Your task to perform on an android device: turn pop-ups on in chrome Image 0: 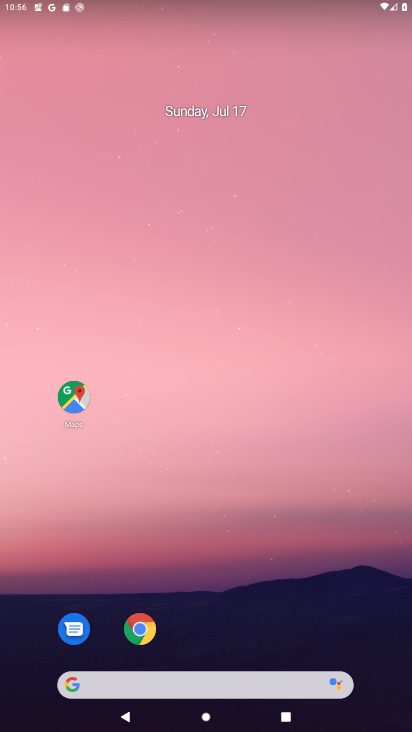
Step 0: click (141, 628)
Your task to perform on an android device: turn pop-ups on in chrome Image 1: 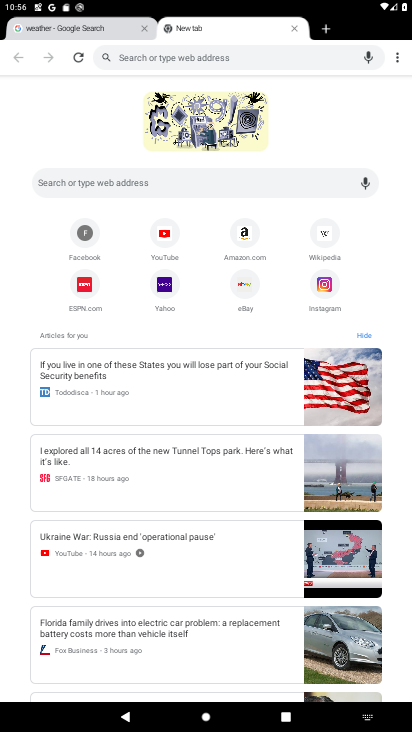
Step 1: click (396, 58)
Your task to perform on an android device: turn pop-ups on in chrome Image 2: 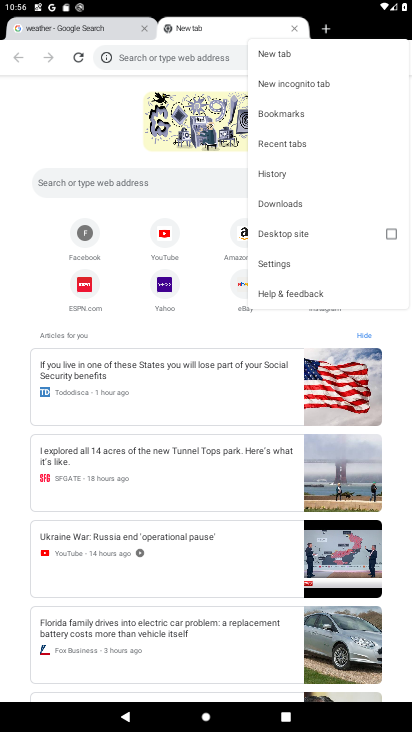
Step 2: click (282, 266)
Your task to perform on an android device: turn pop-ups on in chrome Image 3: 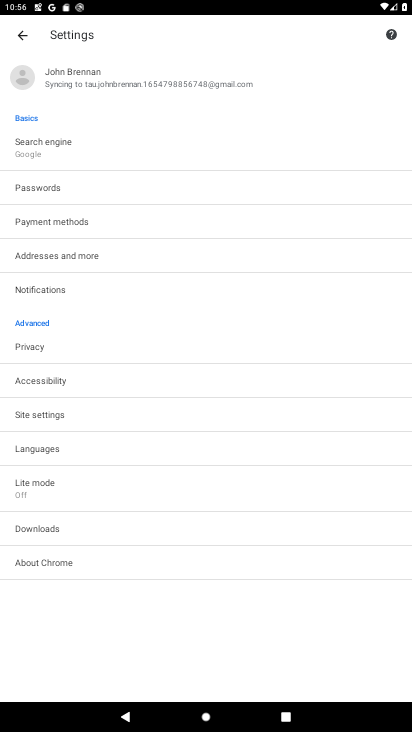
Step 3: click (61, 420)
Your task to perform on an android device: turn pop-ups on in chrome Image 4: 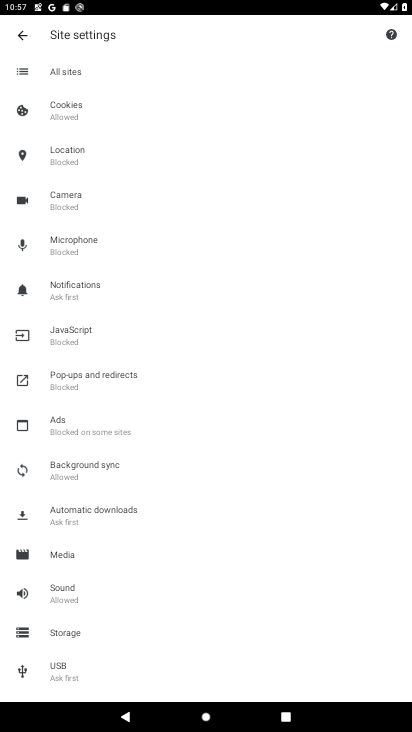
Step 4: click (116, 371)
Your task to perform on an android device: turn pop-ups on in chrome Image 5: 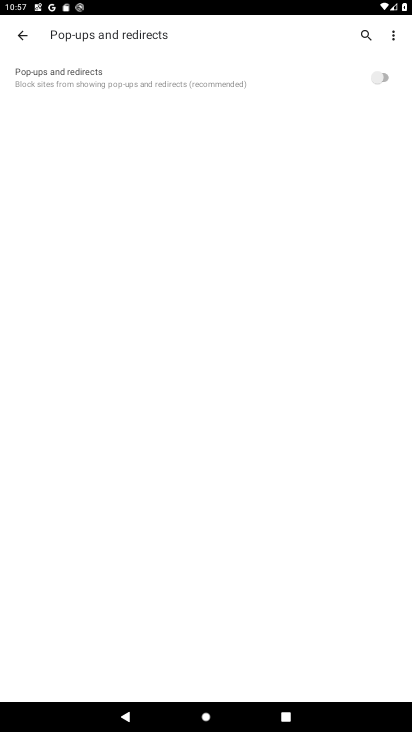
Step 5: click (378, 80)
Your task to perform on an android device: turn pop-ups on in chrome Image 6: 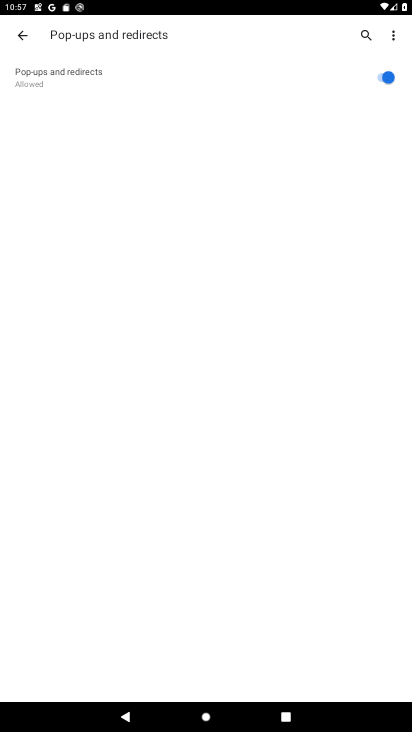
Step 6: task complete